Your task to perform on an android device: check out phone information Image 0: 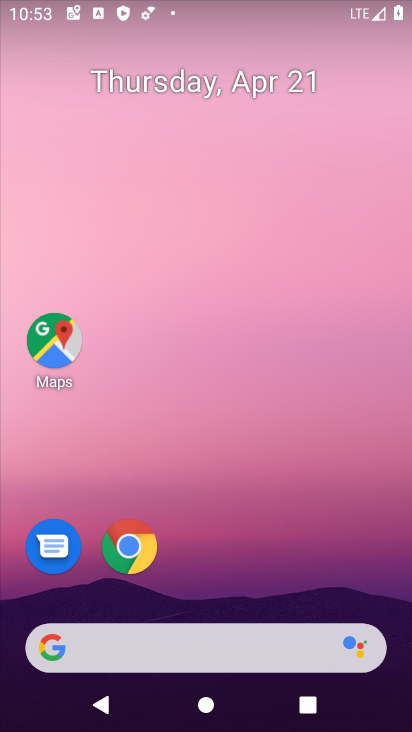
Step 0: drag from (347, 589) to (342, 57)
Your task to perform on an android device: check out phone information Image 1: 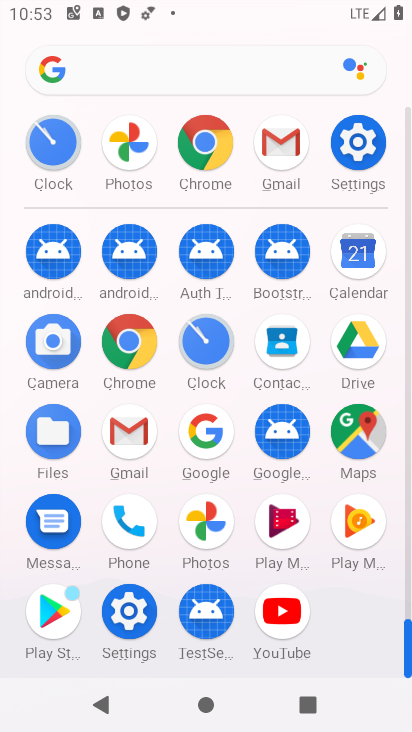
Step 1: click (131, 613)
Your task to perform on an android device: check out phone information Image 2: 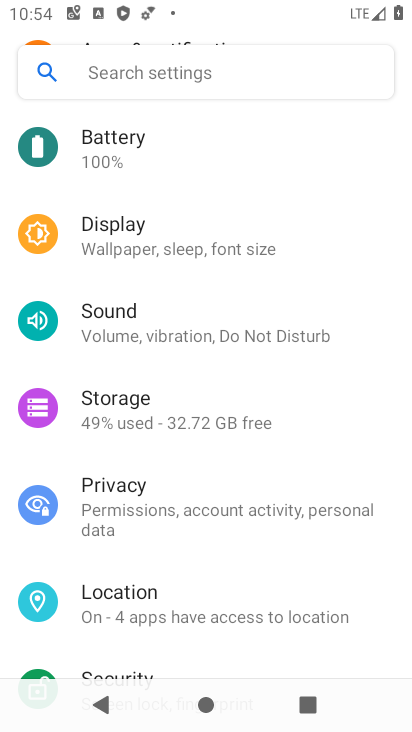
Step 2: drag from (353, 596) to (362, 150)
Your task to perform on an android device: check out phone information Image 3: 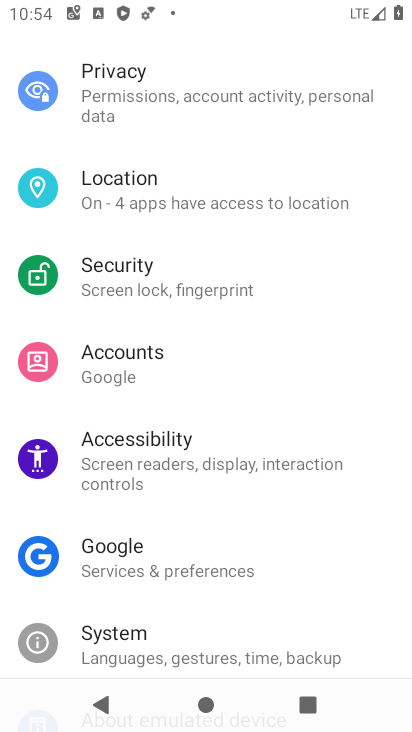
Step 3: drag from (340, 609) to (381, 191)
Your task to perform on an android device: check out phone information Image 4: 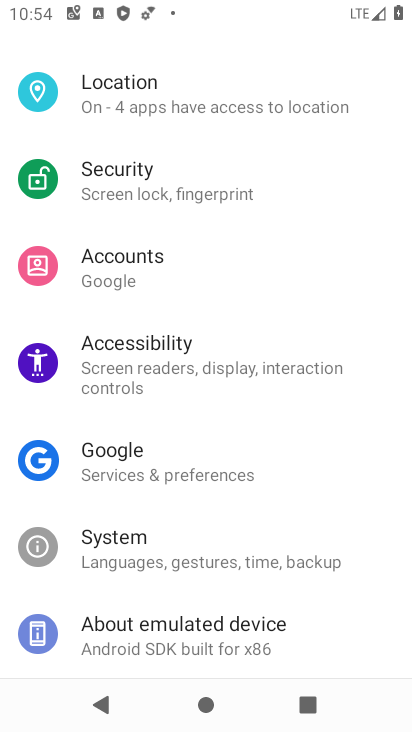
Step 4: click (112, 639)
Your task to perform on an android device: check out phone information Image 5: 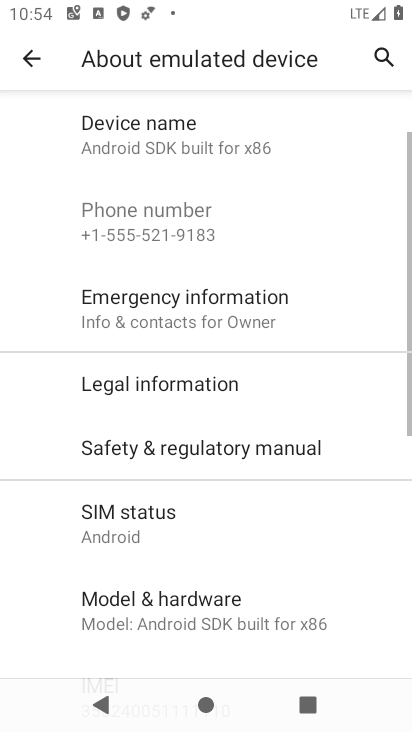
Step 5: task complete